Your task to perform on an android device: uninstall "AliExpress" Image 0: 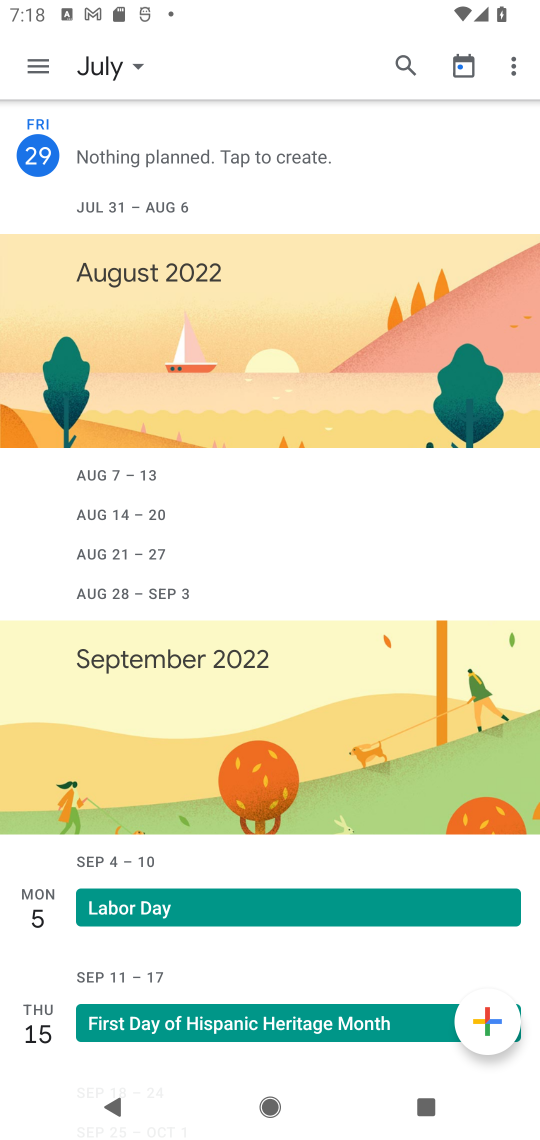
Step 0: press back button
Your task to perform on an android device: uninstall "AliExpress" Image 1: 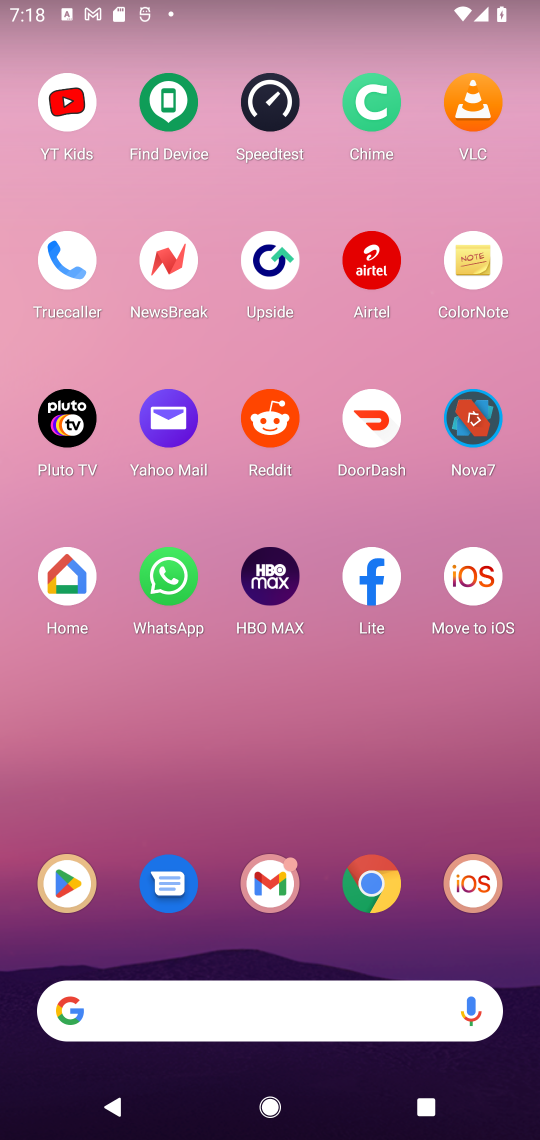
Step 1: click (70, 877)
Your task to perform on an android device: uninstall "AliExpress" Image 2: 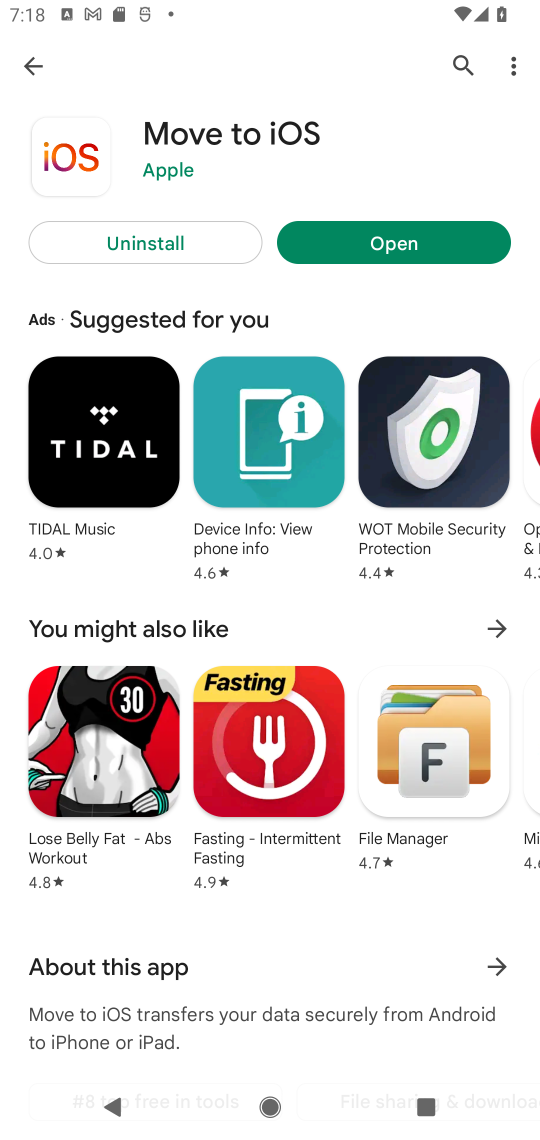
Step 2: click (459, 62)
Your task to perform on an android device: uninstall "AliExpress" Image 3: 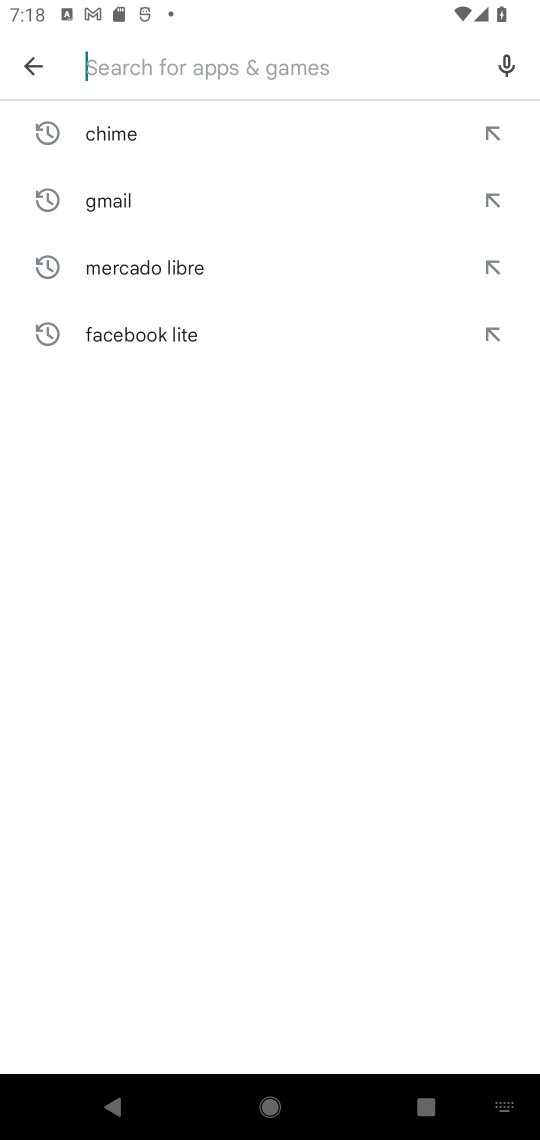
Step 3: click (155, 52)
Your task to perform on an android device: uninstall "AliExpress" Image 4: 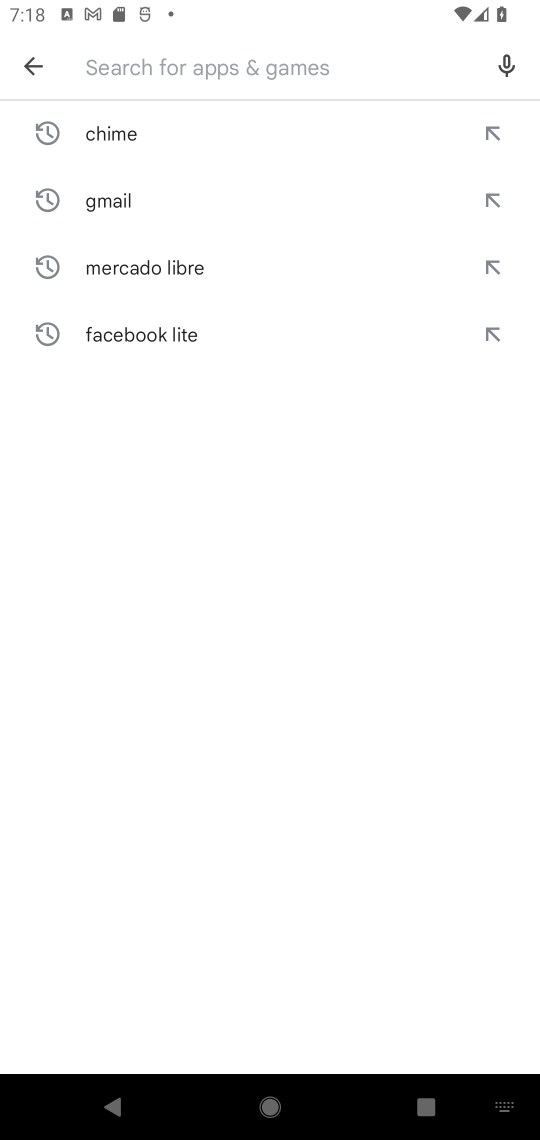
Step 4: type "aliexpress"
Your task to perform on an android device: uninstall "AliExpress" Image 5: 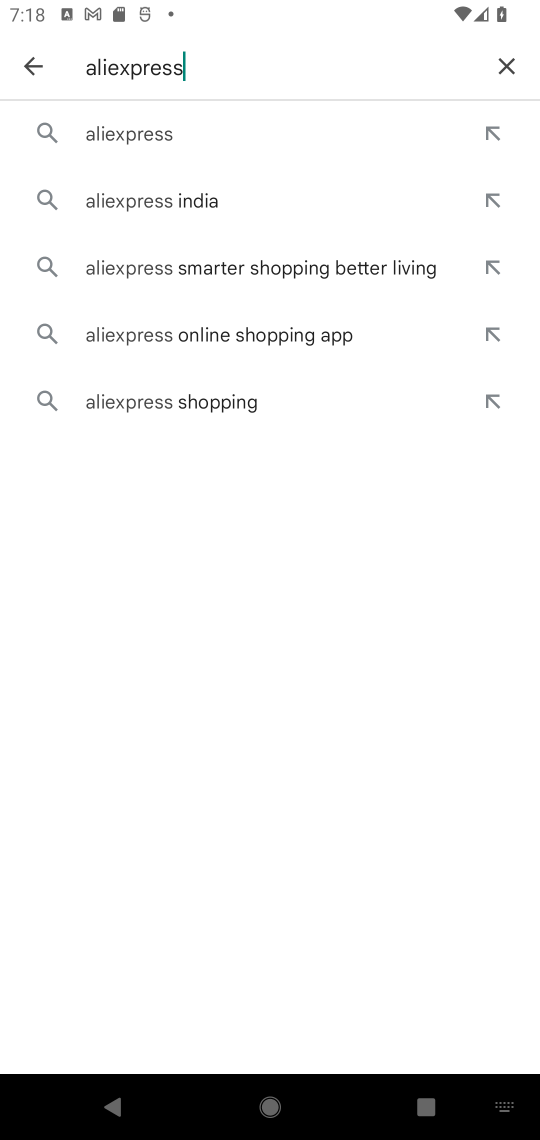
Step 5: click (157, 135)
Your task to perform on an android device: uninstall "AliExpress" Image 6: 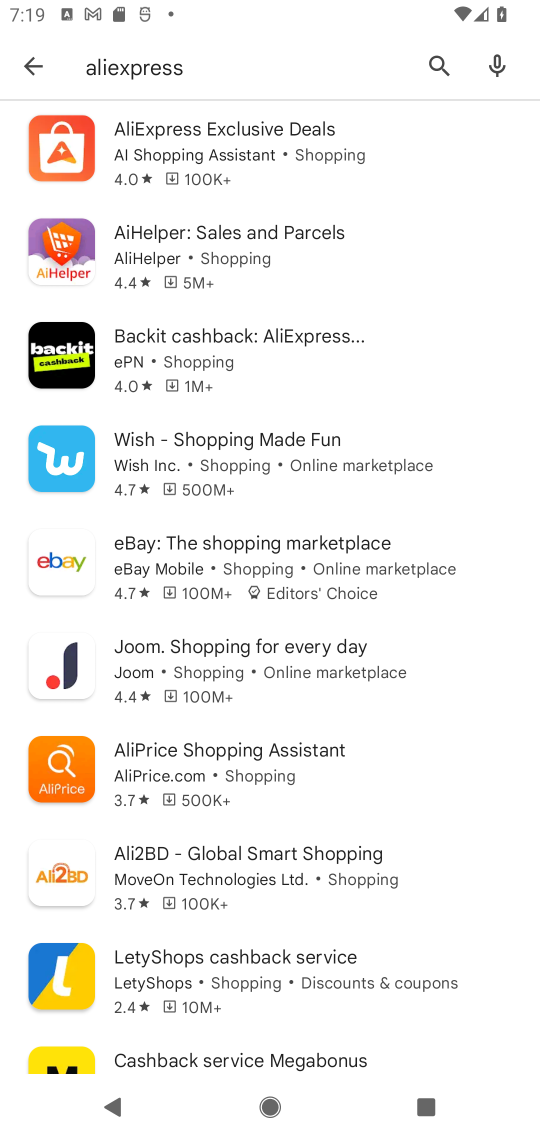
Step 6: click (214, 157)
Your task to perform on an android device: uninstall "AliExpress" Image 7: 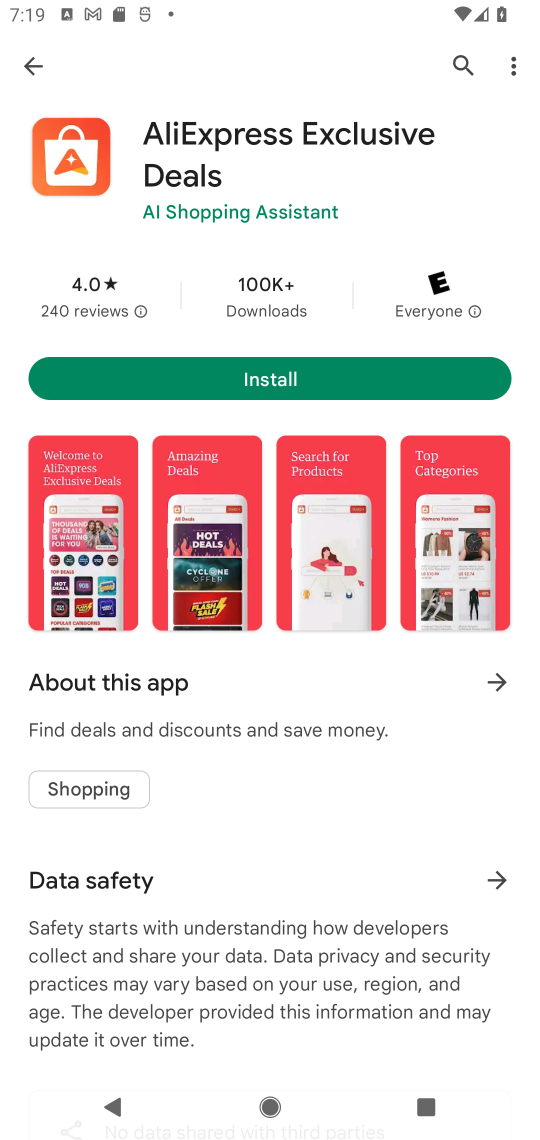
Step 7: task complete